Your task to perform on an android device: turn on the 12-hour format for clock Image 0: 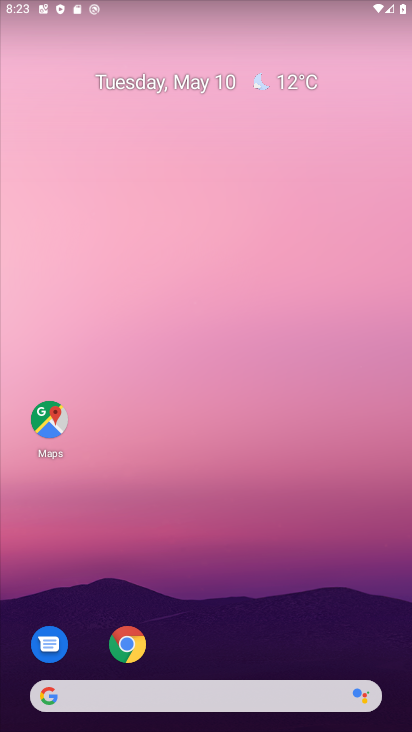
Step 0: drag from (377, 650) to (325, 142)
Your task to perform on an android device: turn on the 12-hour format for clock Image 1: 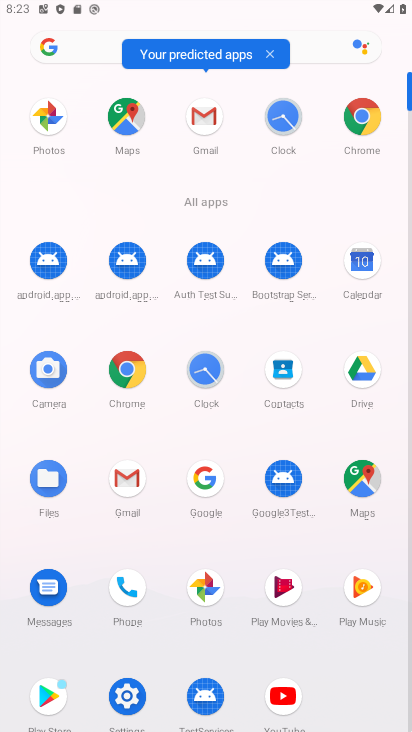
Step 1: click (204, 369)
Your task to perform on an android device: turn on the 12-hour format for clock Image 2: 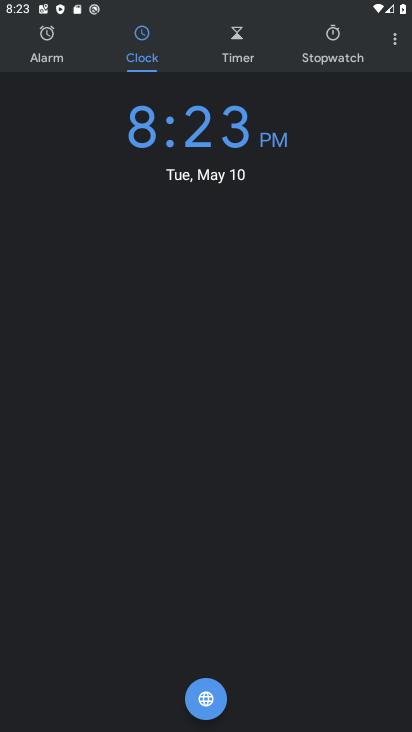
Step 2: click (393, 45)
Your task to perform on an android device: turn on the 12-hour format for clock Image 3: 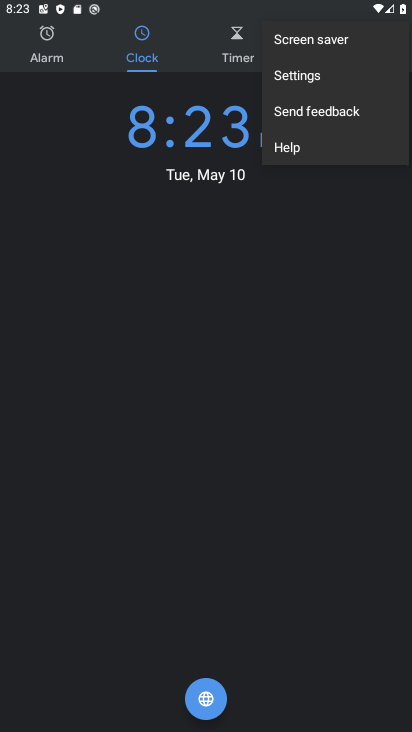
Step 3: click (290, 73)
Your task to perform on an android device: turn on the 12-hour format for clock Image 4: 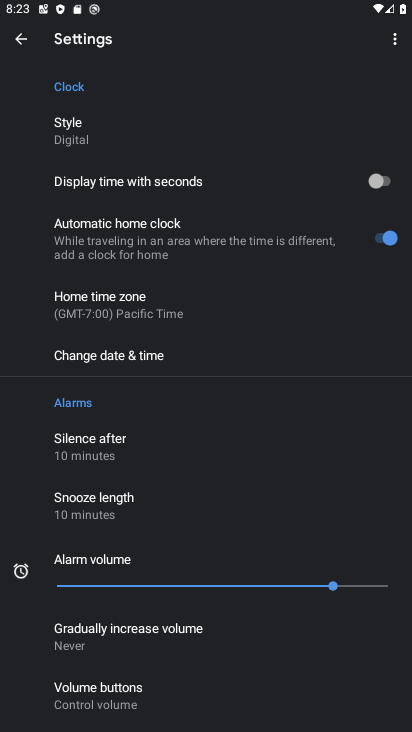
Step 4: click (123, 355)
Your task to perform on an android device: turn on the 12-hour format for clock Image 5: 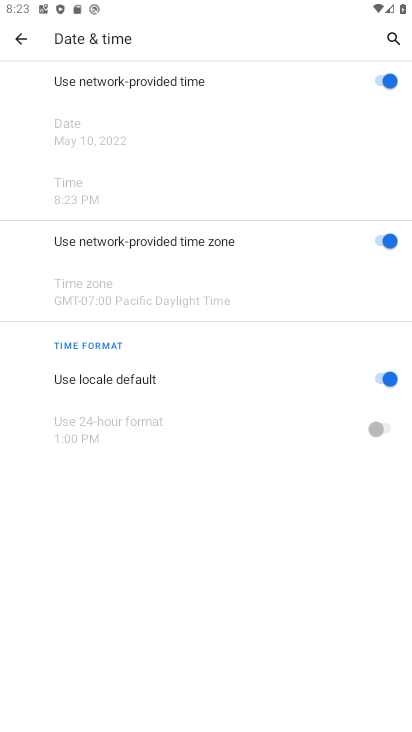
Step 5: task complete